Your task to perform on an android device: Search for sushi restaurants on Maps Image 0: 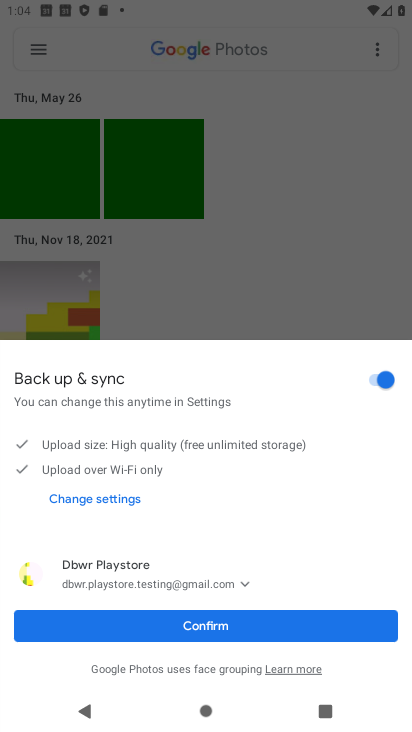
Step 0: task complete